Your task to perform on an android device: turn on the 24-hour format for clock Image 0: 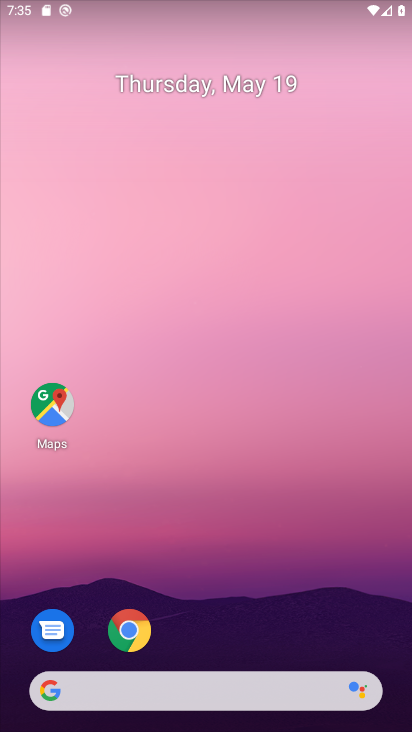
Step 0: drag from (42, 664) to (385, 197)
Your task to perform on an android device: turn on the 24-hour format for clock Image 1: 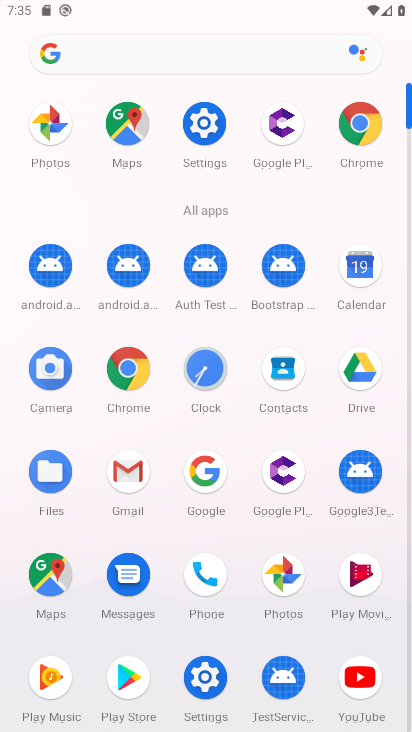
Step 1: click (201, 357)
Your task to perform on an android device: turn on the 24-hour format for clock Image 2: 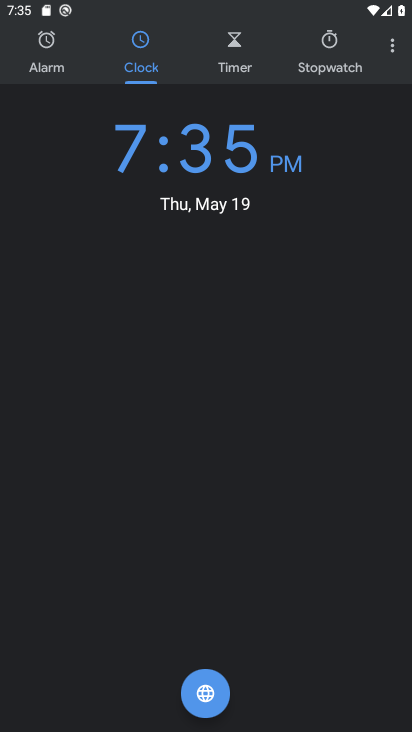
Step 2: click (385, 50)
Your task to perform on an android device: turn on the 24-hour format for clock Image 3: 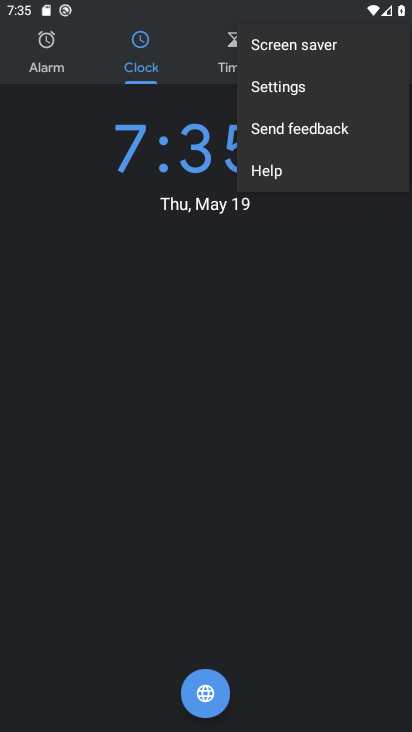
Step 3: click (316, 85)
Your task to perform on an android device: turn on the 24-hour format for clock Image 4: 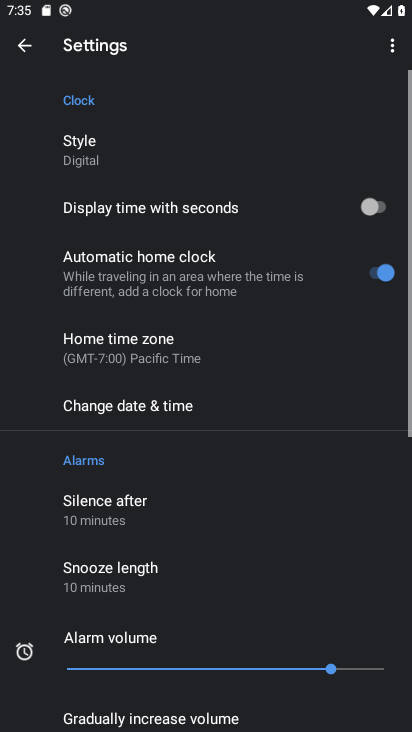
Step 4: drag from (40, 653) to (218, 106)
Your task to perform on an android device: turn on the 24-hour format for clock Image 5: 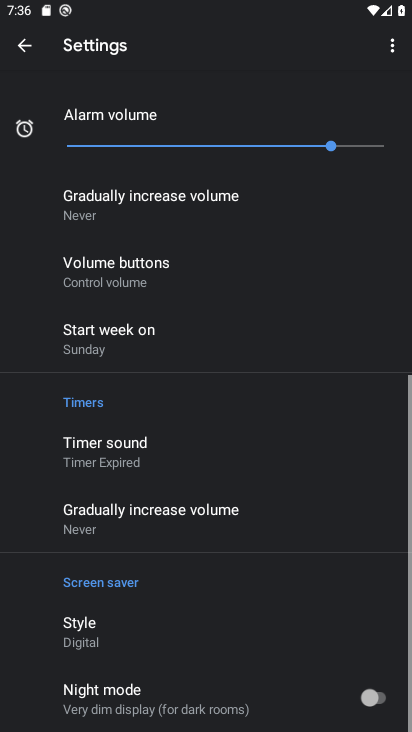
Step 5: drag from (207, 112) to (156, 573)
Your task to perform on an android device: turn on the 24-hour format for clock Image 6: 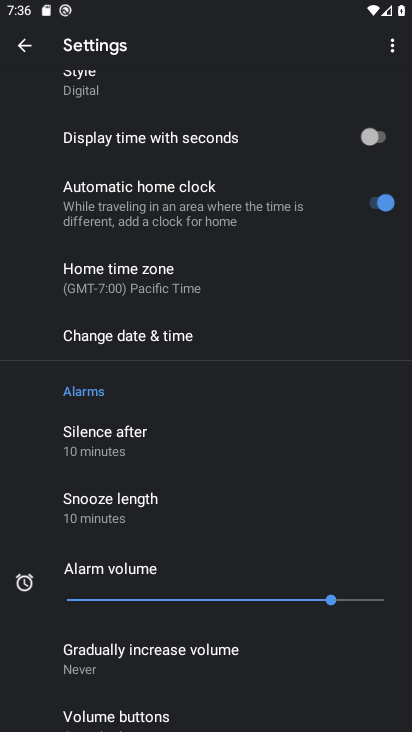
Step 6: click (156, 329)
Your task to perform on an android device: turn on the 24-hour format for clock Image 7: 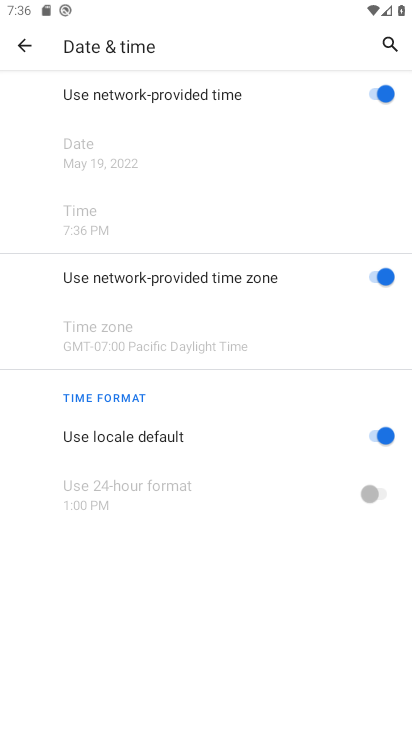
Step 7: click (381, 443)
Your task to perform on an android device: turn on the 24-hour format for clock Image 8: 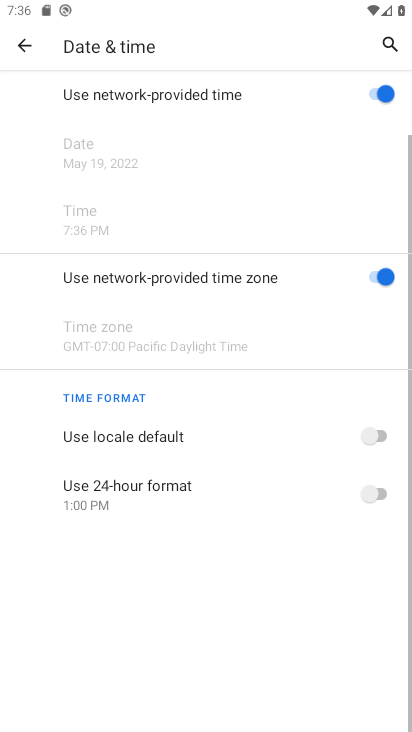
Step 8: click (367, 493)
Your task to perform on an android device: turn on the 24-hour format for clock Image 9: 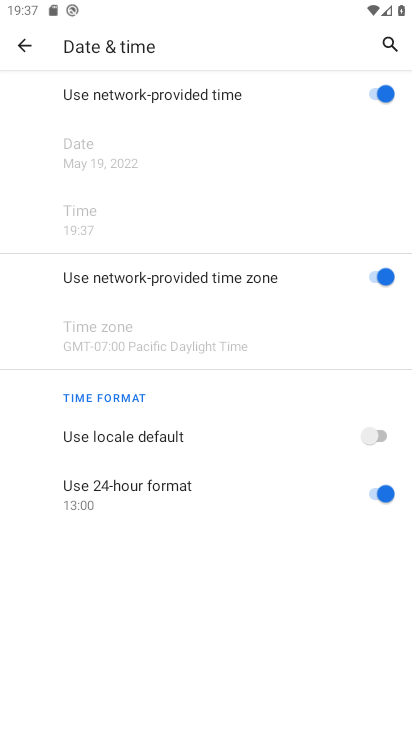
Step 9: task complete